Your task to perform on an android device: Open settings Image 0: 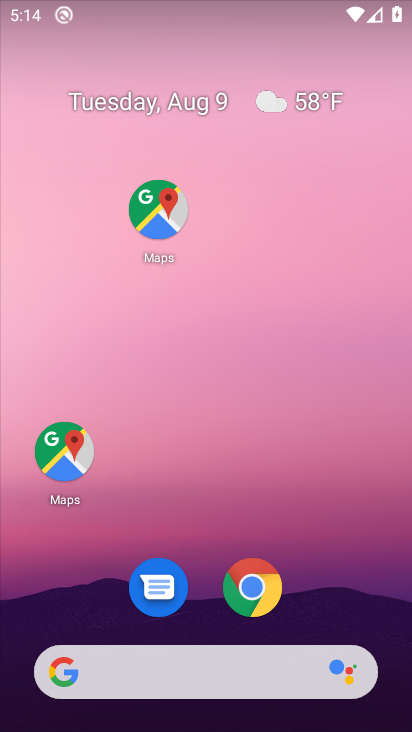
Step 0: drag from (231, 706) to (191, 270)
Your task to perform on an android device: Open settings Image 1: 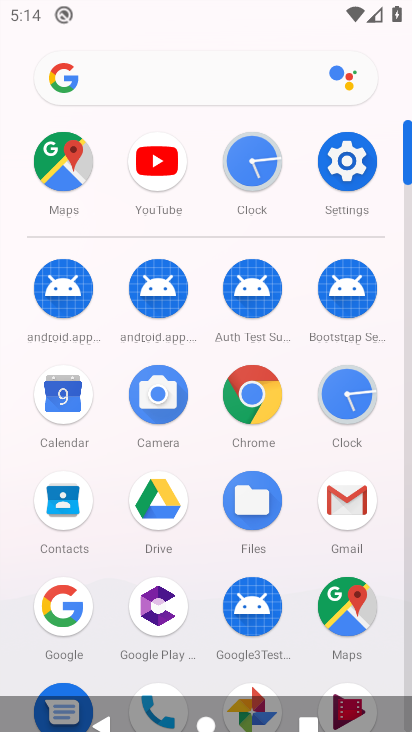
Step 1: click (360, 152)
Your task to perform on an android device: Open settings Image 2: 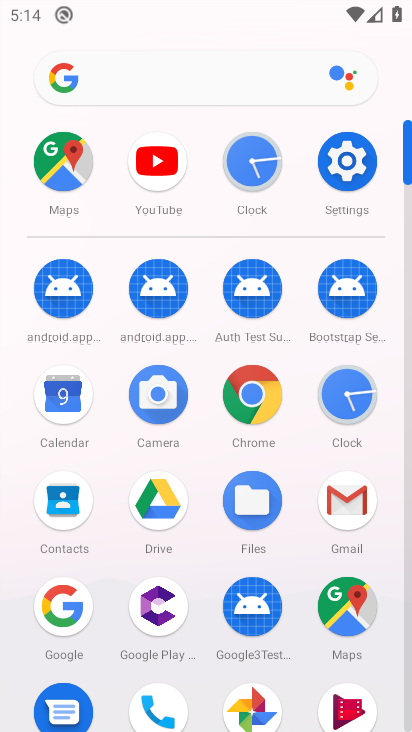
Step 2: click (350, 155)
Your task to perform on an android device: Open settings Image 3: 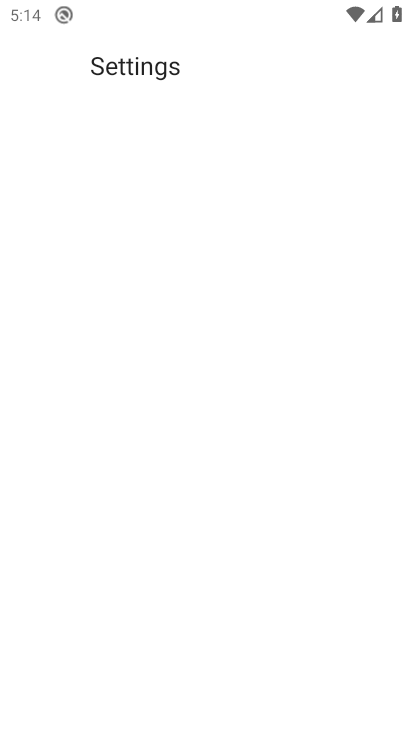
Step 3: click (340, 156)
Your task to perform on an android device: Open settings Image 4: 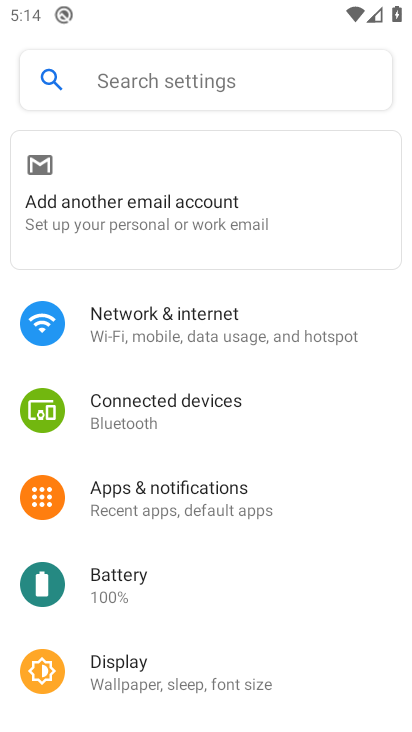
Step 4: click (343, 171)
Your task to perform on an android device: Open settings Image 5: 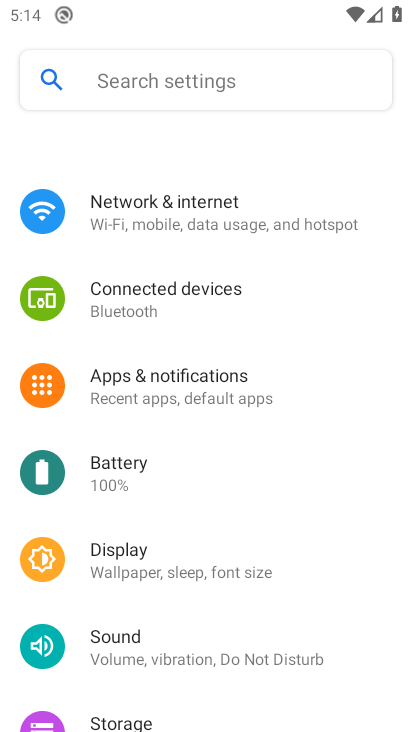
Step 5: click (348, 196)
Your task to perform on an android device: Open settings Image 6: 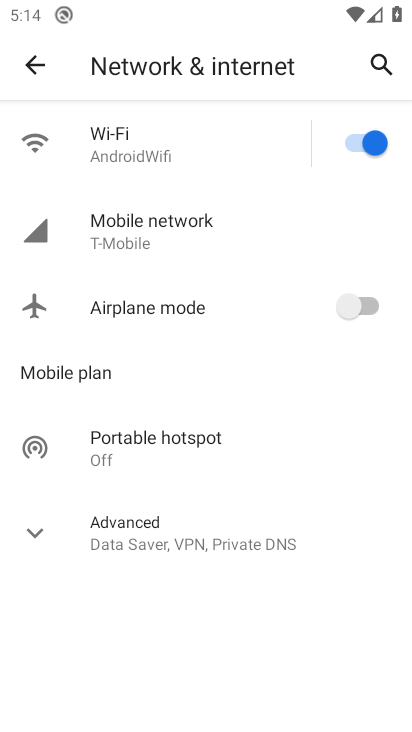
Step 6: task complete